Your task to perform on an android device: Open maps Image 0: 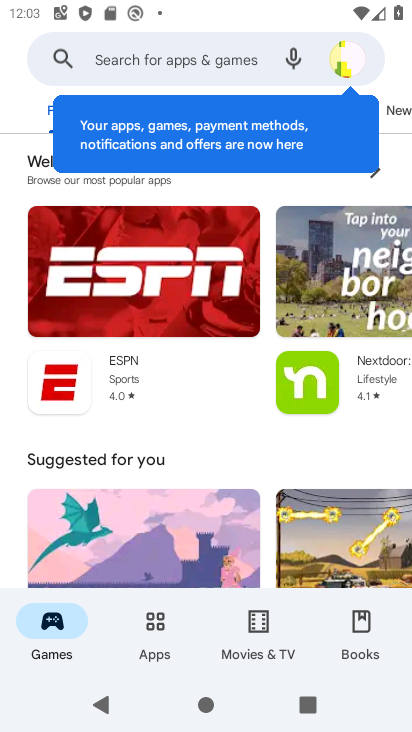
Step 0: press home button
Your task to perform on an android device: Open maps Image 1: 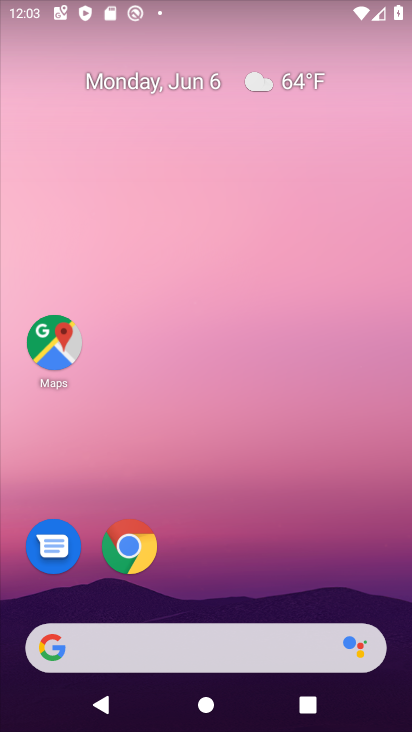
Step 1: click (42, 336)
Your task to perform on an android device: Open maps Image 2: 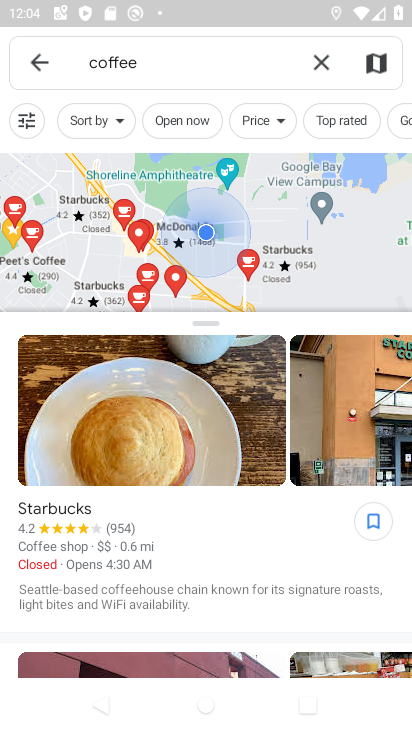
Step 2: click (321, 63)
Your task to perform on an android device: Open maps Image 3: 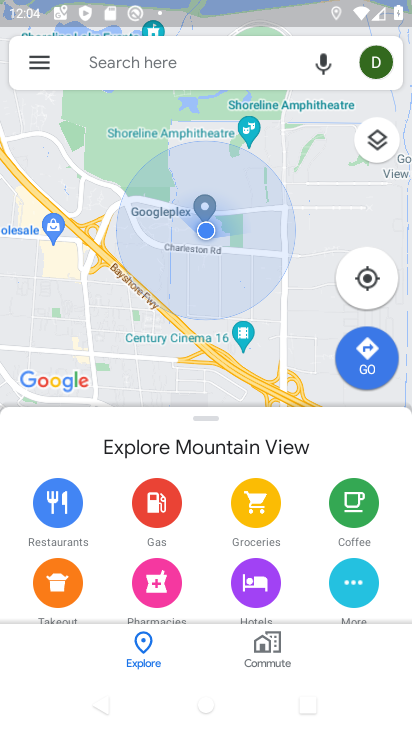
Step 3: task complete